Your task to perform on an android device: turn off location Image 0: 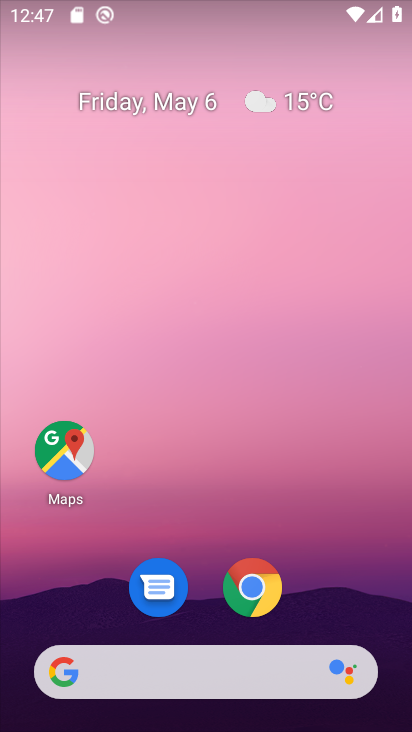
Step 0: drag from (336, 588) to (224, 41)
Your task to perform on an android device: turn off location Image 1: 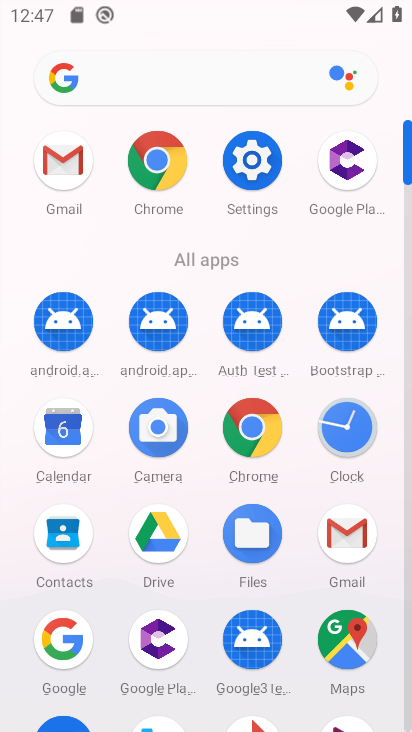
Step 1: click (252, 163)
Your task to perform on an android device: turn off location Image 2: 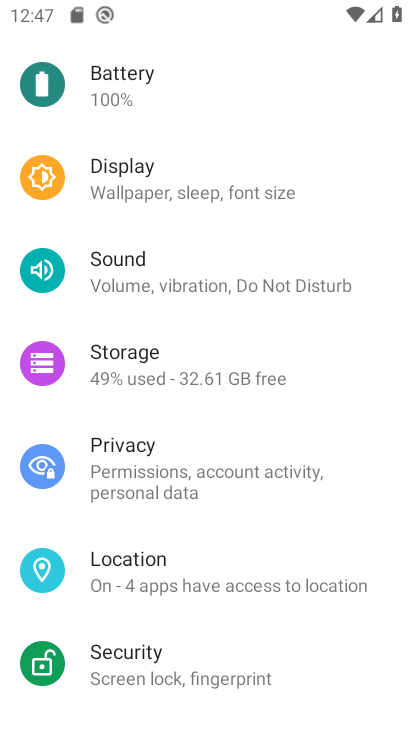
Step 2: click (170, 560)
Your task to perform on an android device: turn off location Image 3: 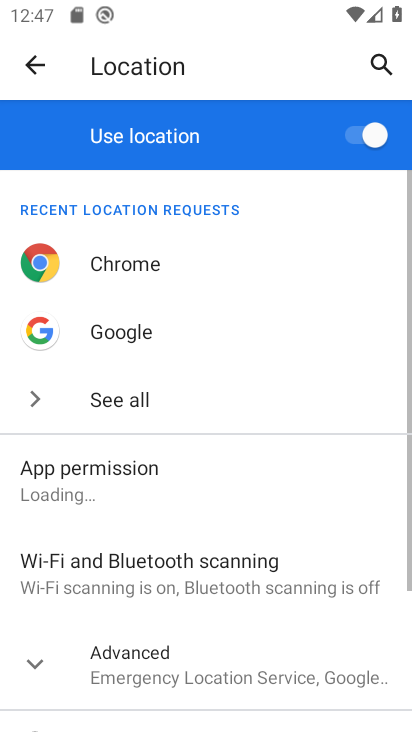
Step 3: click (364, 125)
Your task to perform on an android device: turn off location Image 4: 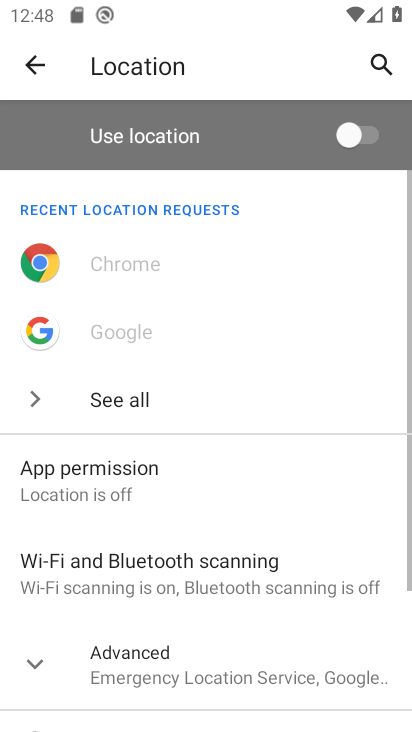
Step 4: task complete